Your task to perform on an android device: open the mobile data screen to see how much data has been used Image 0: 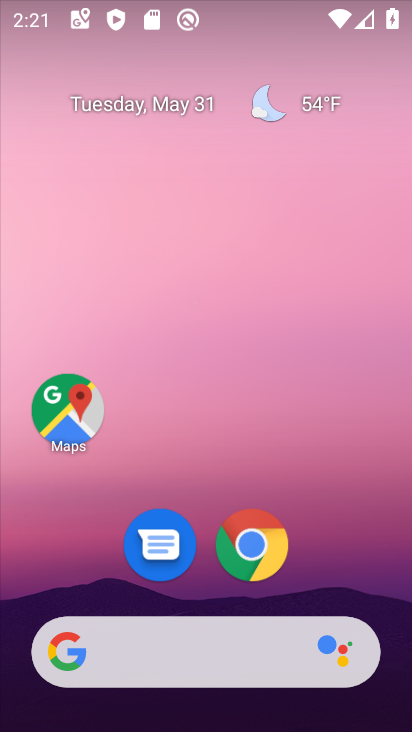
Step 0: drag from (320, 4) to (360, 427)
Your task to perform on an android device: open the mobile data screen to see how much data has been used Image 1: 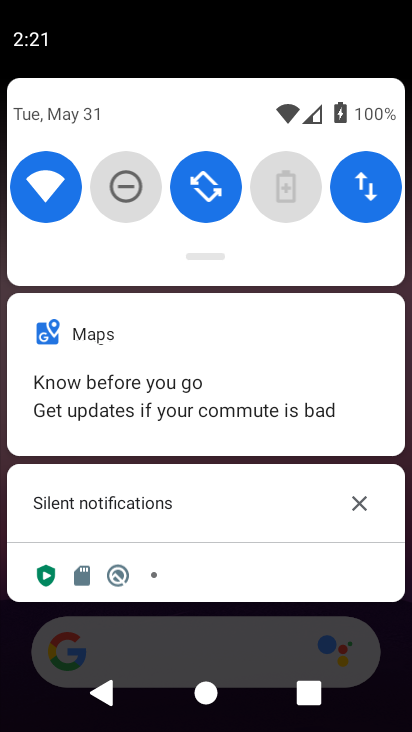
Step 1: click (365, 184)
Your task to perform on an android device: open the mobile data screen to see how much data has been used Image 2: 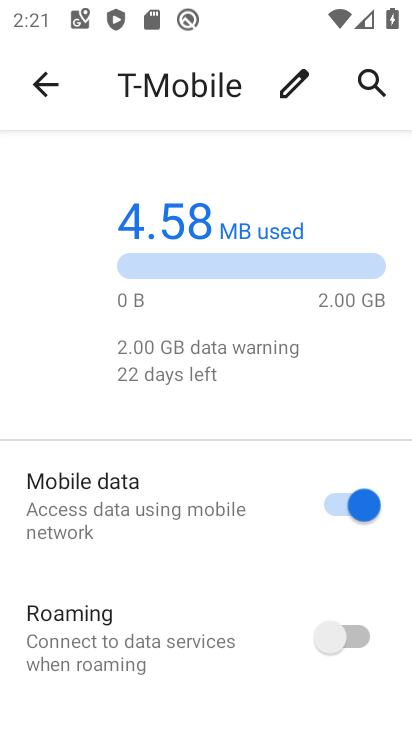
Step 2: task complete